Your task to perform on an android device: Open the stopwatch Image 0: 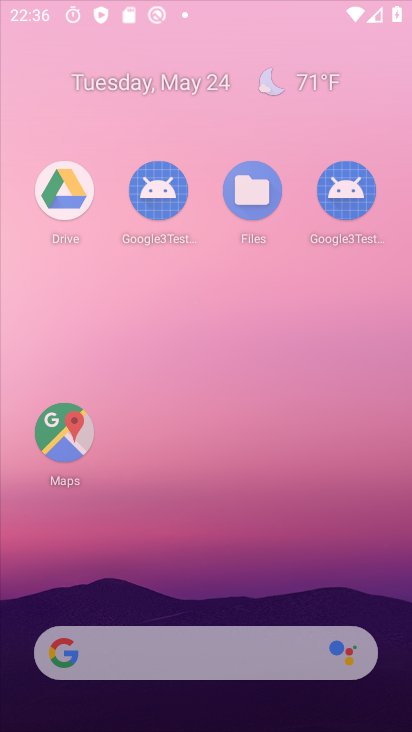
Step 0: click (227, 608)
Your task to perform on an android device: Open the stopwatch Image 1: 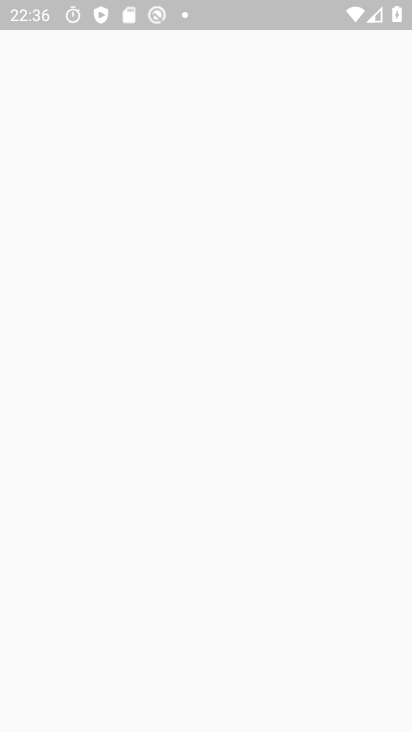
Step 1: press home button
Your task to perform on an android device: Open the stopwatch Image 2: 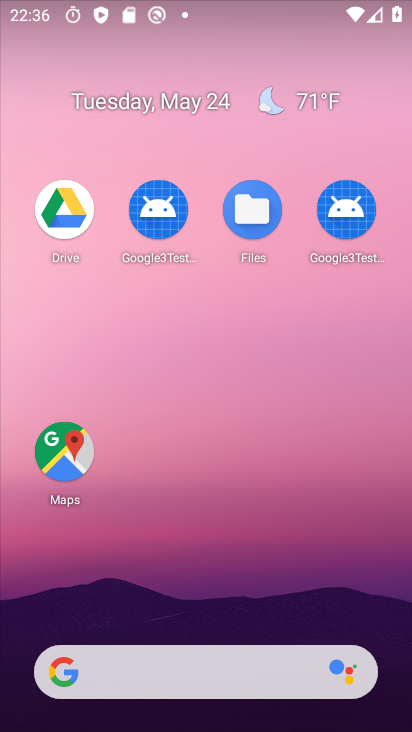
Step 2: drag from (237, 632) to (186, 148)
Your task to perform on an android device: Open the stopwatch Image 3: 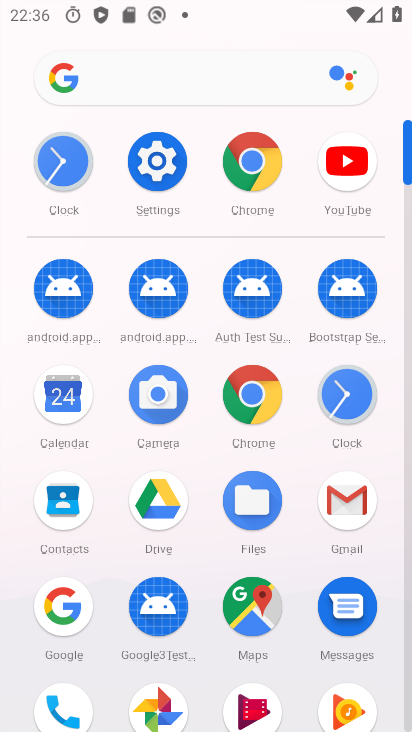
Step 3: click (352, 416)
Your task to perform on an android device: Open the stopwatch Image 4: 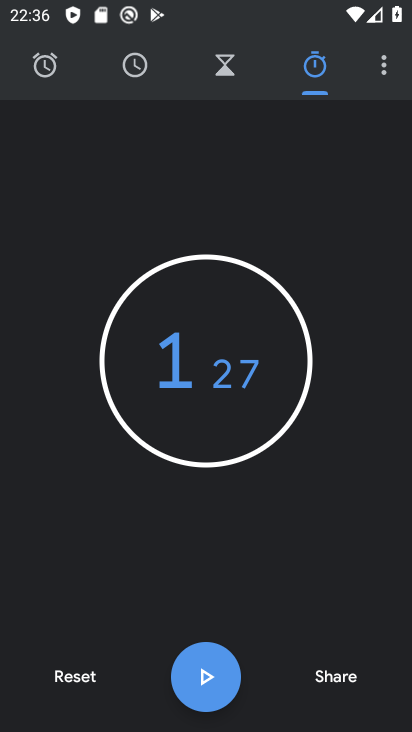
Step 4: task complete